Your task to perform on an android device: Go to Maps Image 0: 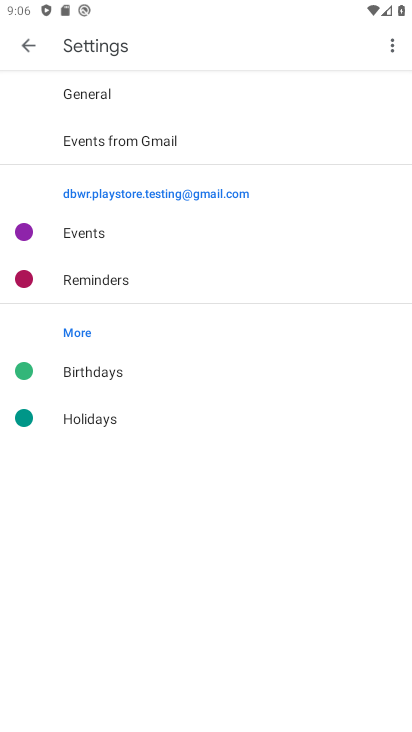
Step 0: press home button
Your task to perform on an android device: Go to Maps Image 1: 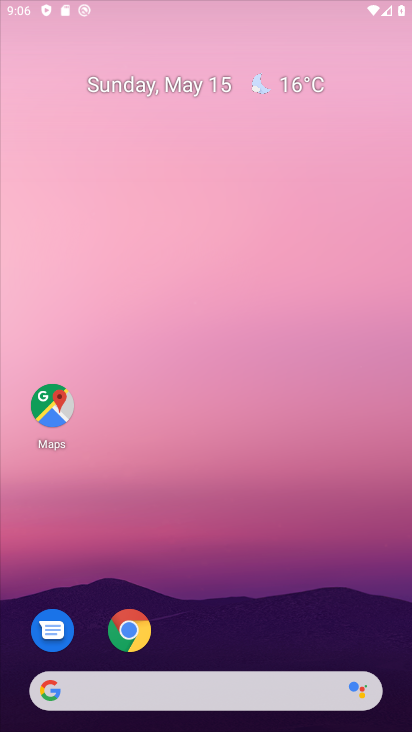
Step 1: click (26, 423)
Your task to perform on an android device: Go to Maps Image 2: 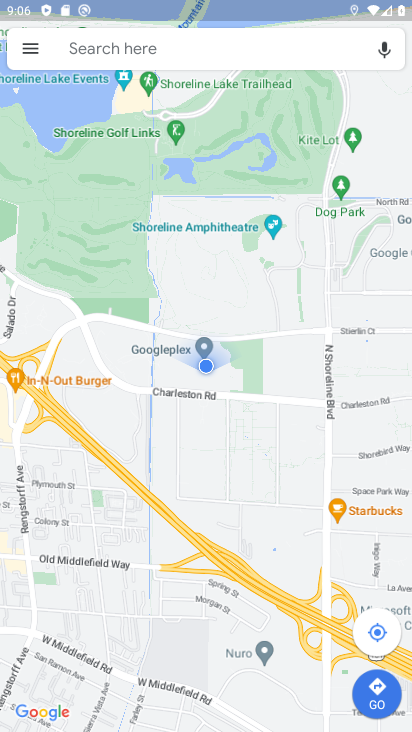
Step 2: task complete